Your task to perform on an android device: toggle airplane mode Image 0: 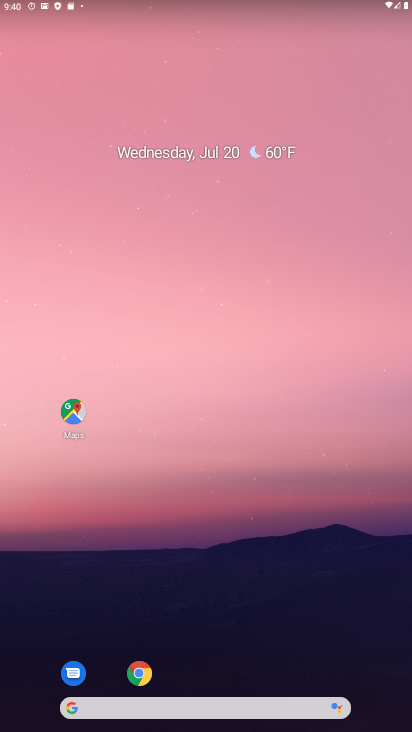
Step 0: drag from (211, 625) to (207, 275)
Your task to perform on an android device: toggle airplane mode Image 1: 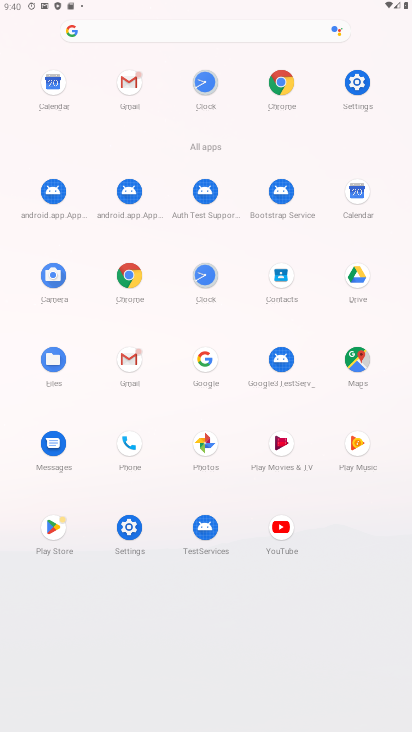
Step 1: click (133, 536)
Your task to perform on an android device: toggle airplane mode Image 2: 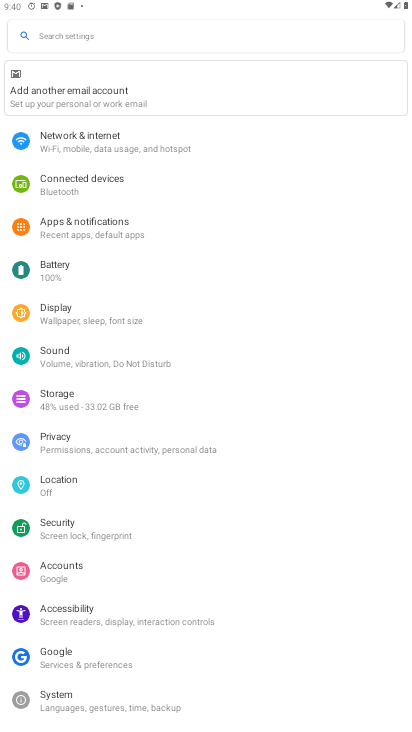
Step 2: click (123, 145)
Your task to perform on an android device: toggle airplane mode Image 3: 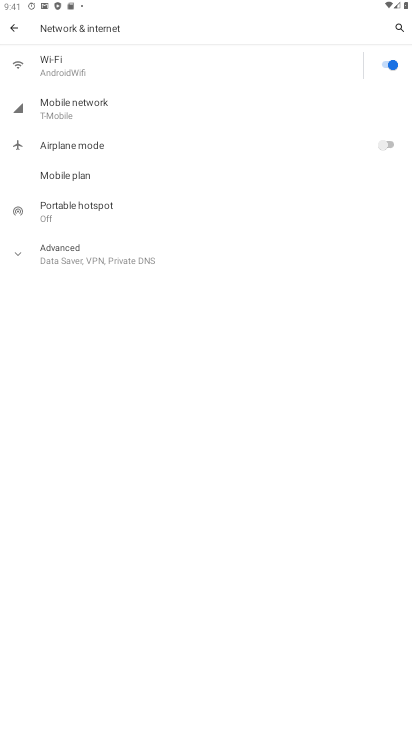
Step 3: click (364, 139)
Your task to perform on an android device: toggle airplane mode Image 4: 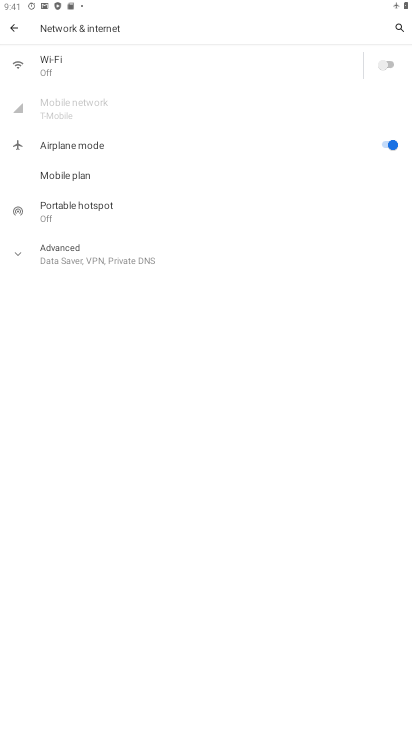
Step 4: task complete